Your task to perform on an android device: clear history in the chrome app Image 0: 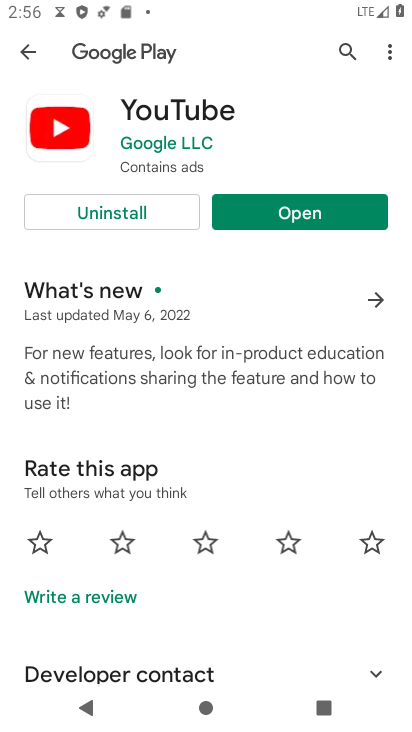
Step 0: press home button
Your task to perform on an android device: clear history in the chrome app Image 1: 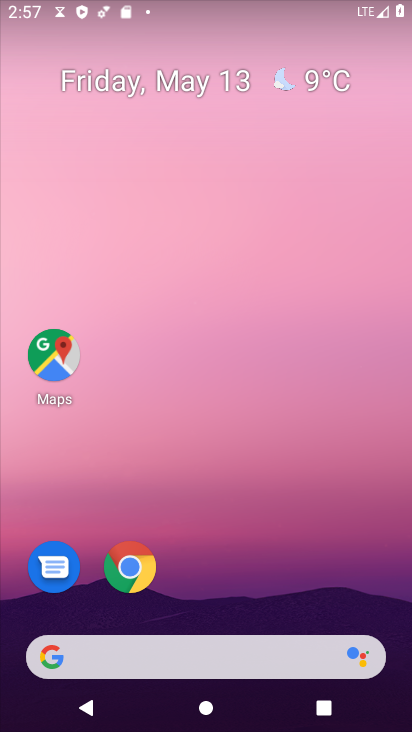
Step 1: click (132, 581)
Your task to perform on an android device: clear history in the chrome app Image 2: 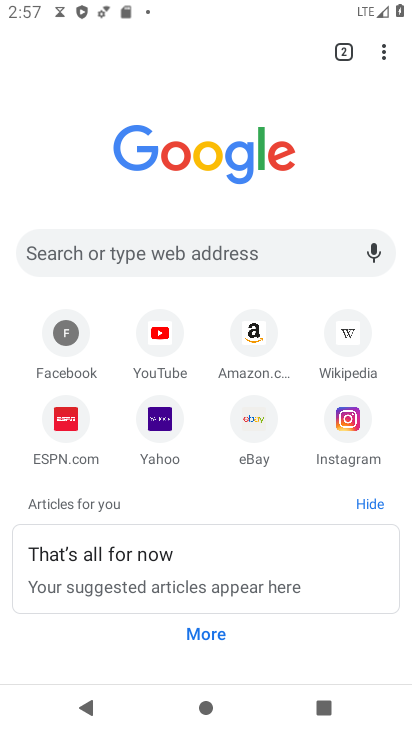
Step 2: drag from (382, 52) to (211, 440)
Your task to perform on an android device: clear history in the chrome app Image 3: 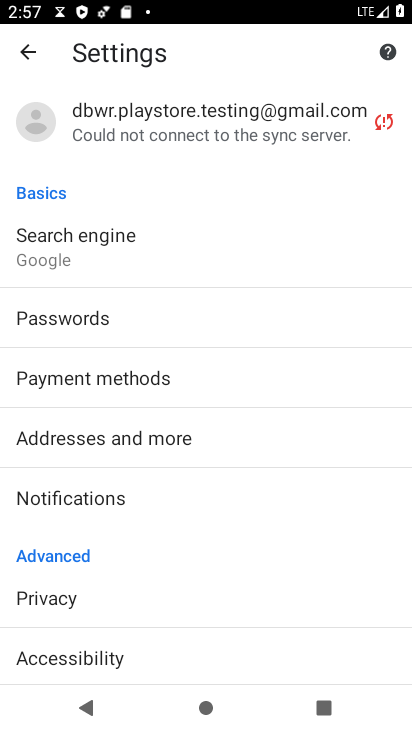
Step 3: click (53, 595)
Your task to perform on an android device: clear history in the chrome app Image 4: 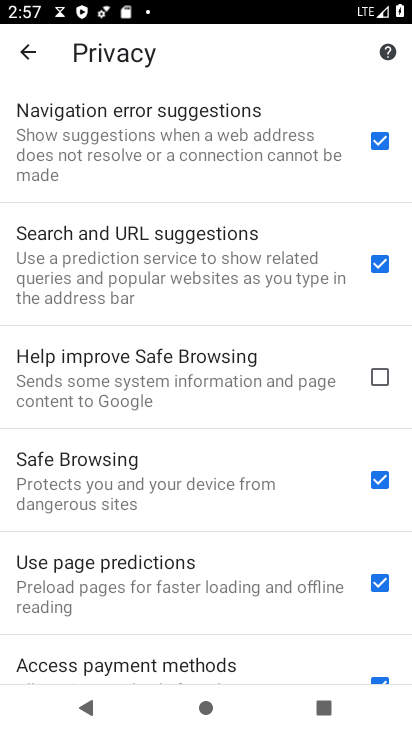
Step 4: drag from (125, 575) to (151, 182)
Your task to perform on an android device: clear history in the chrome app Image 5: 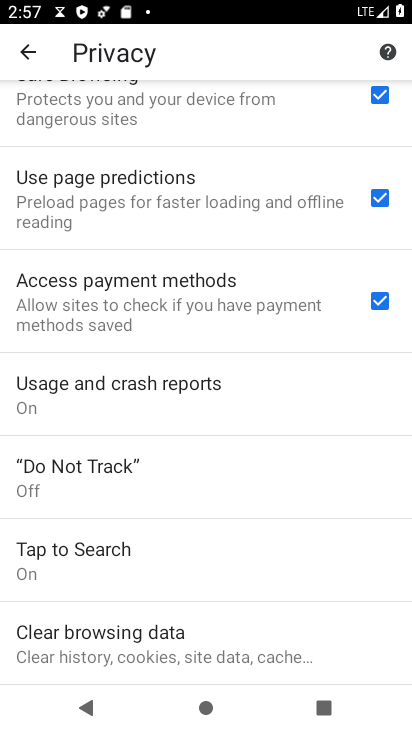
Step 5: drag from (129, 529) to (133, 289)
Your task to perform on an android device: clear history in the chrome app Image 6: 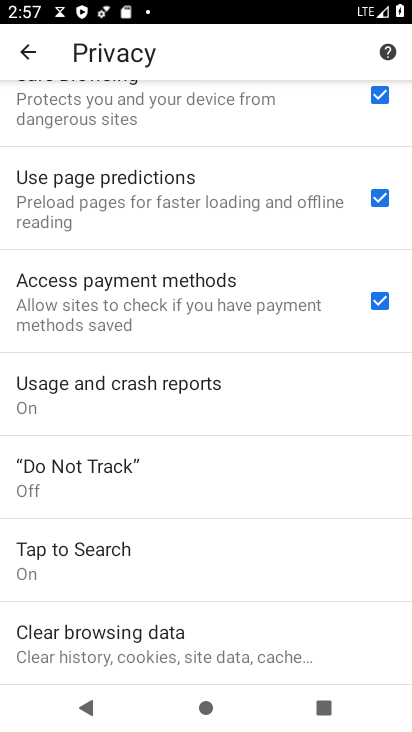
Step 6: click (122, 647)
Your task to perform on an android device: clear history in the chrome app Image 7: 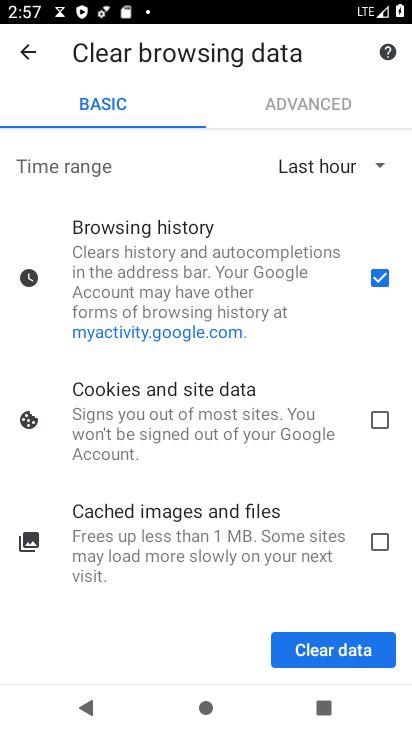
Step 7: click (326, 645)
Your task to perform on an android device: clear history in the chrome app Image 8: 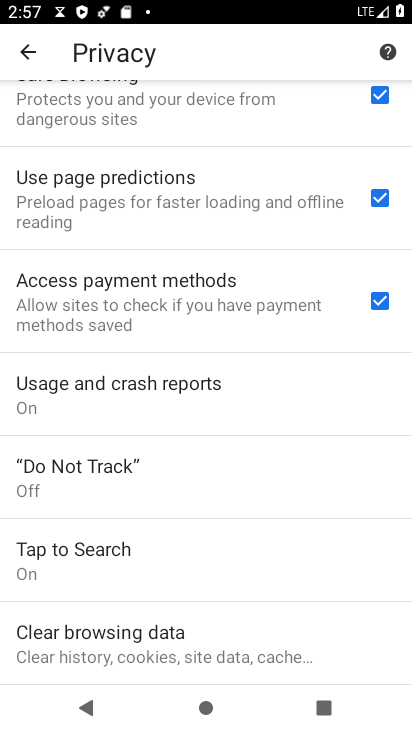
Step 8: task complete